Your task to perform on an android device: Open Google Chrome and open the bookmarks view Image 0: 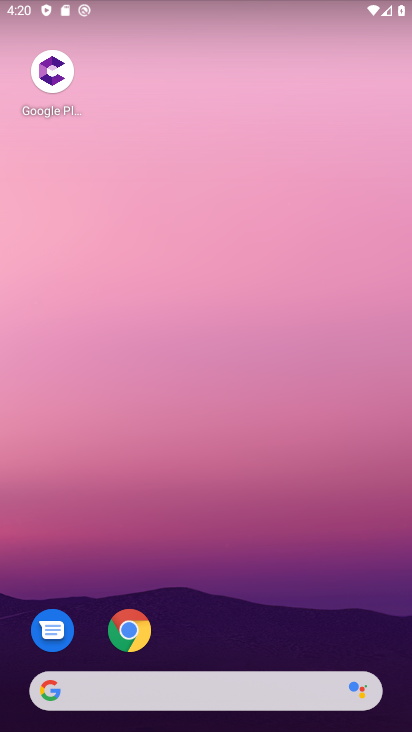
Step 0: drag from (216, 648) to (170, 155)
Your task to perform on an android device: Open Google Chrome and open the bookmarks view Image 1: 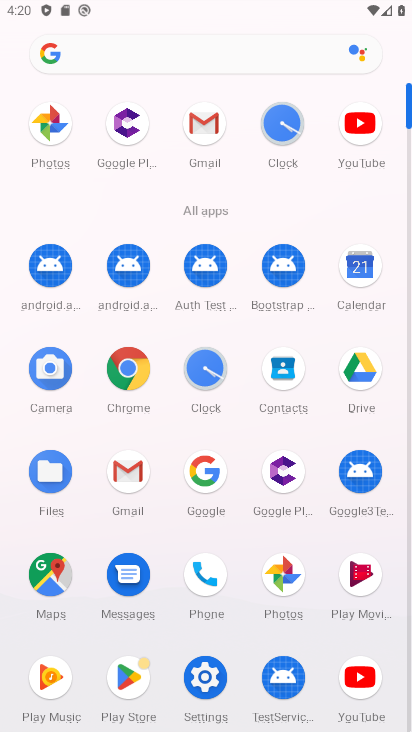
Step 1: click (127, 379)
Your task to perform on an android device: Open Google Chrome and open the bookmarks view Image 2: 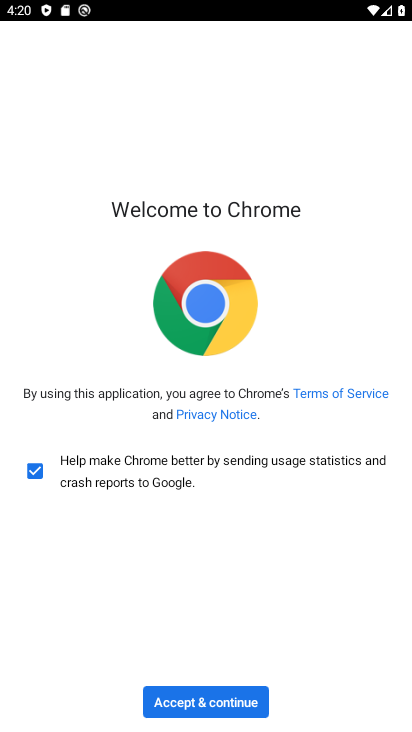
Step 2: click (195, 708)
Your task to perform on an android device: Open Google Chrome and open the bookmarks view Image 3: 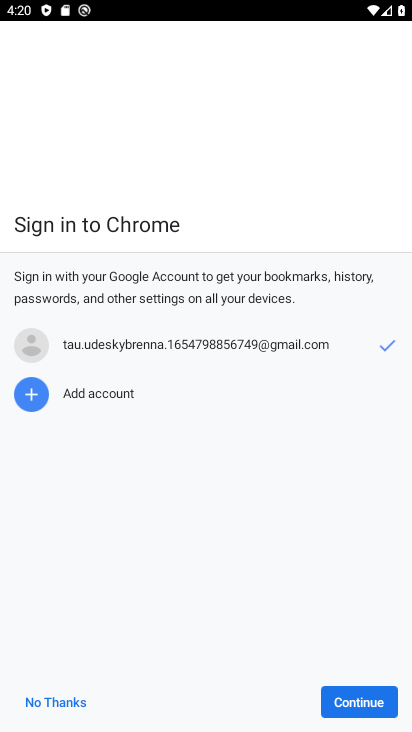
Step 3: click (347, 699)
Your task to perform on an android device: Open Google Chrome and open the bookmarks view Image 4: 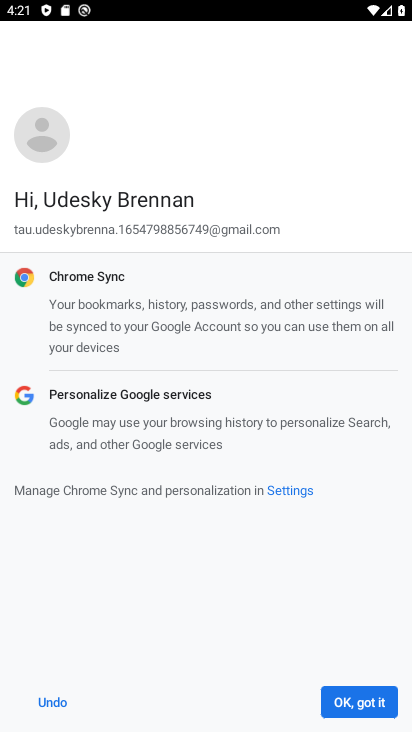
Step 4: click (342, 698)
Your task to perform on an android device: Open Google Chrome and open the bookmarks view Image 5: 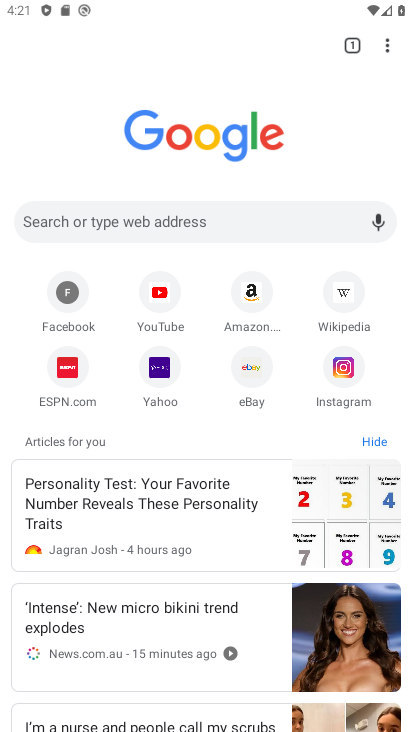
Step 5: click (389, 44)
Your task to perform on an android device: Open Google Chrome and open the bookmarks view Image 6: 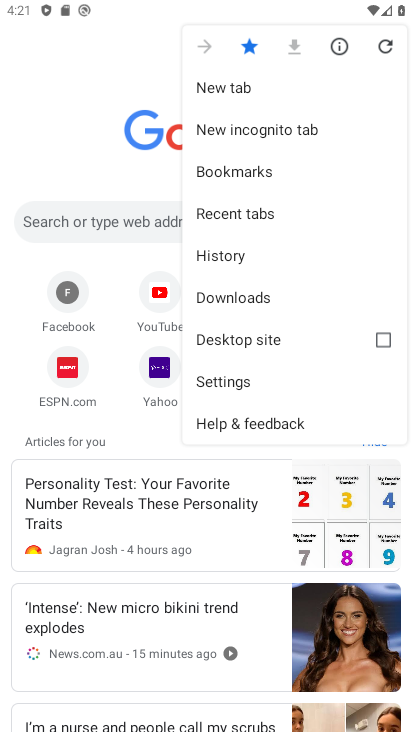
Step 6: click (291, 162)
Your task to perform on an android device: Open Google Chrome and open the bookmarks view Image 7: 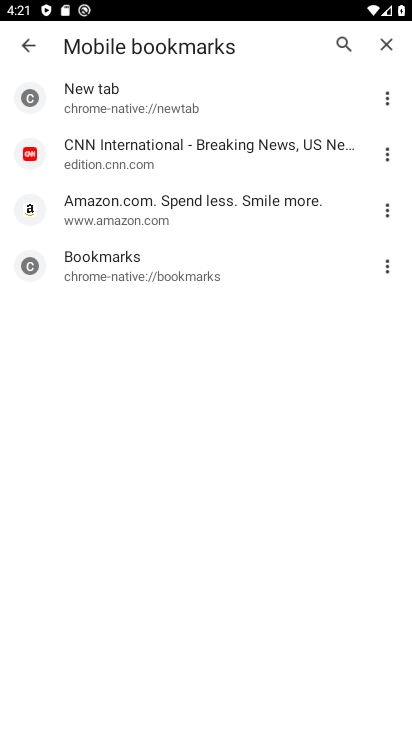
Step 7: task complete